Your task to perform on an android device: change the clock display to analog Image 0: 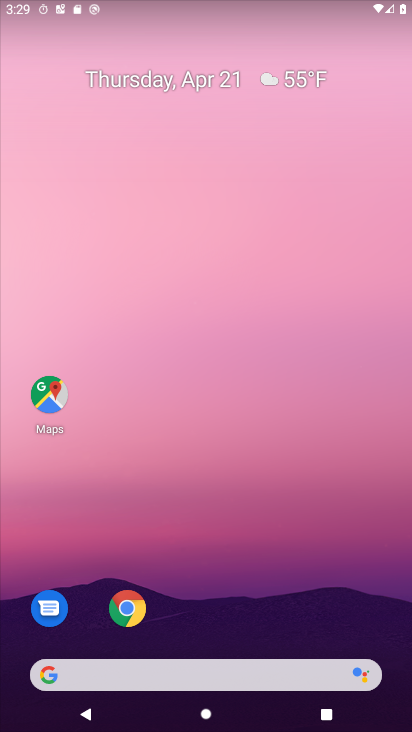
Step 0: drag from (284, 603) to (270, 1)
Your task to perform on an android device: change the clock display to analog Image 1: 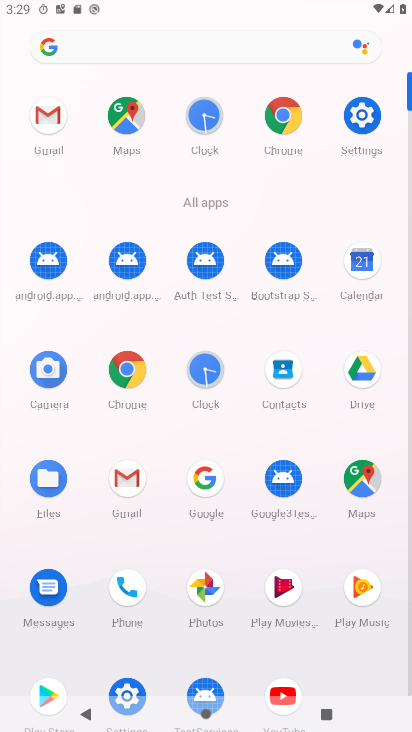
Step 1: click (201, 395)
Your task to perform on an android device: change the clock display to analog Image 2: 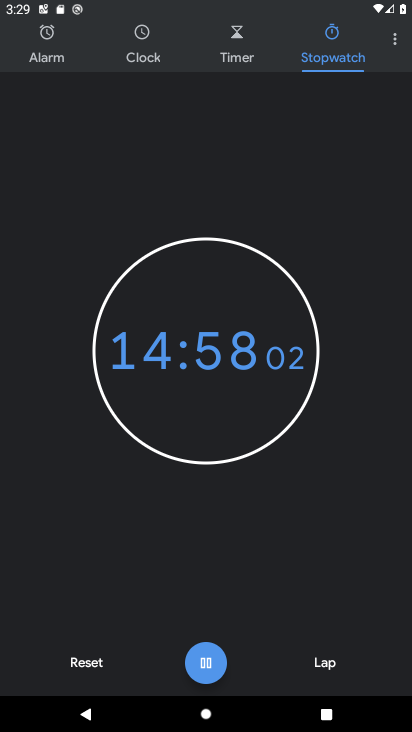
Step 2: click (389, 40)
Your task to perform on an android device: change the clock display to analog Image 3: 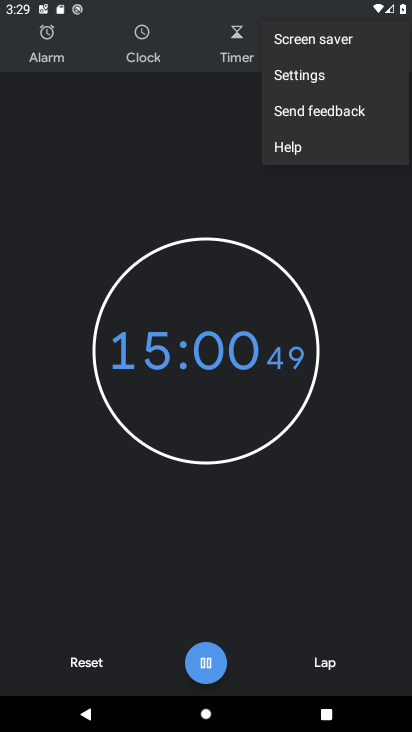
Step 3: click (367, 63)
Your task to perform on an android device: change the clock display to analog Image 4: 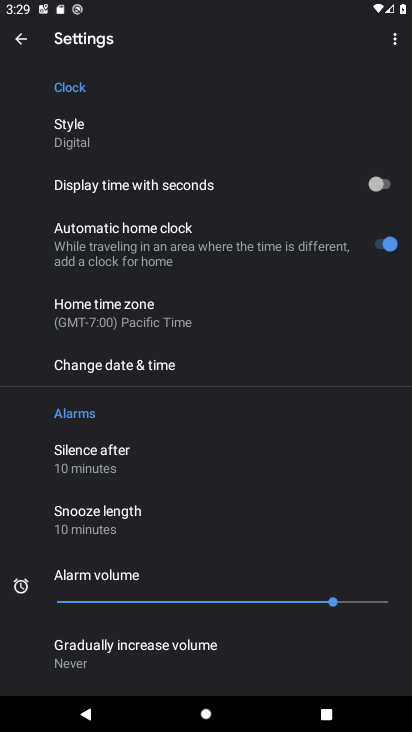
Step 4: click (109, 124)
Your task to perform on an android device: change the clock display to analog Image 5: 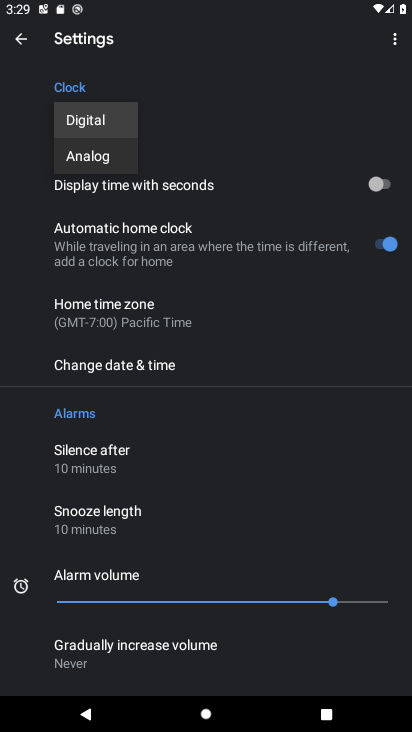
Step 5: click (106, 160)
Your task to perform on an android device: change the clock display to analog Image 6: 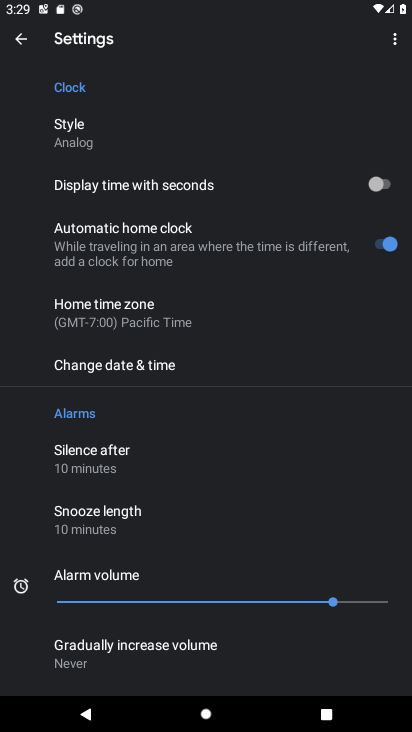
Step 6: task complete